Your task to perform on an android device: add a contact in the contacts app Image 0: 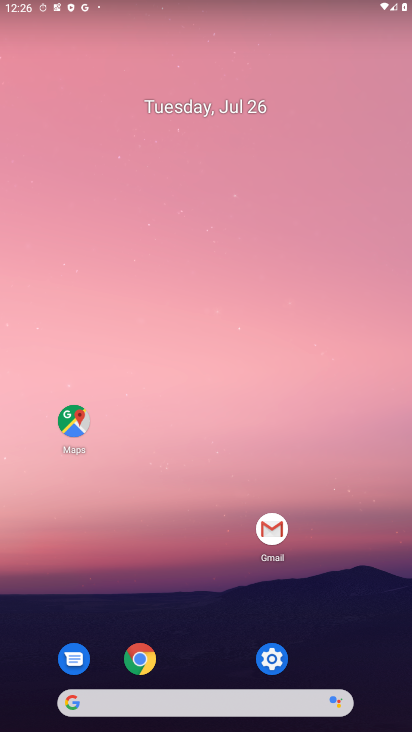
Step 0: drag from (276, 706) to (158, 194)
Your task to perform on an android device: add a contact in the contacts app Image 1: 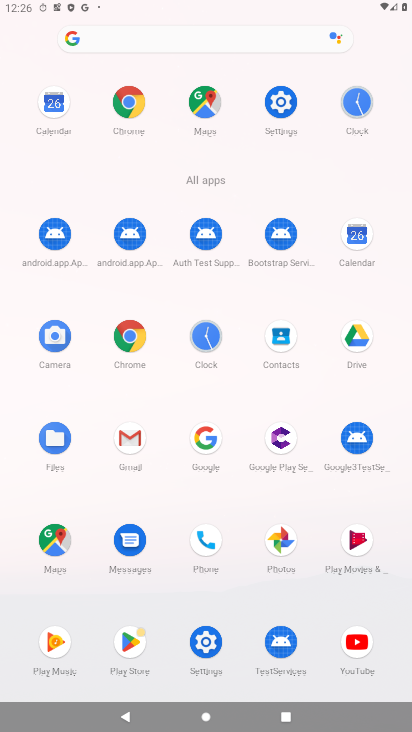
Step 1: click (204, 550)
Your task to perform on an android device: add a contact in the contacts app Image 2: 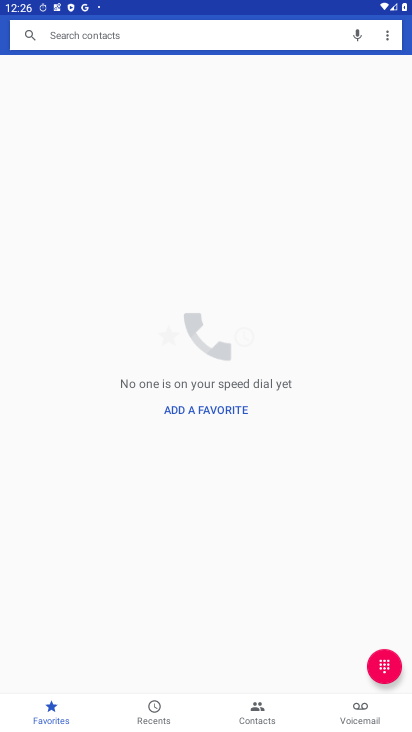
Step 2: click (265, 711)
Your task to perform on an android device: add a contact in the contacts app Image 3: 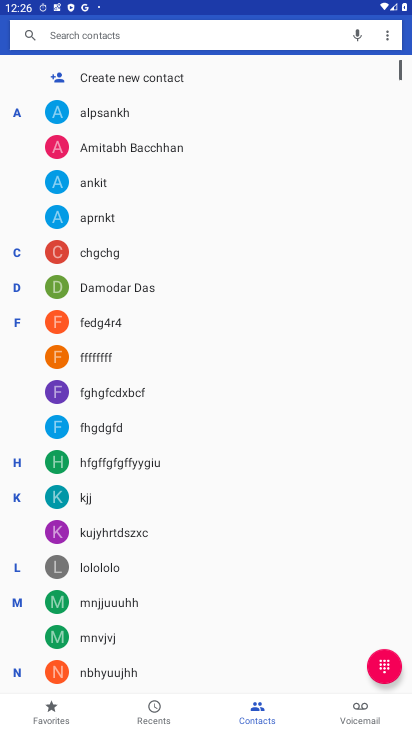
Step 3: click (122, 70)
Your task to perform on an android device: add a contact in the contacts app Image 4: 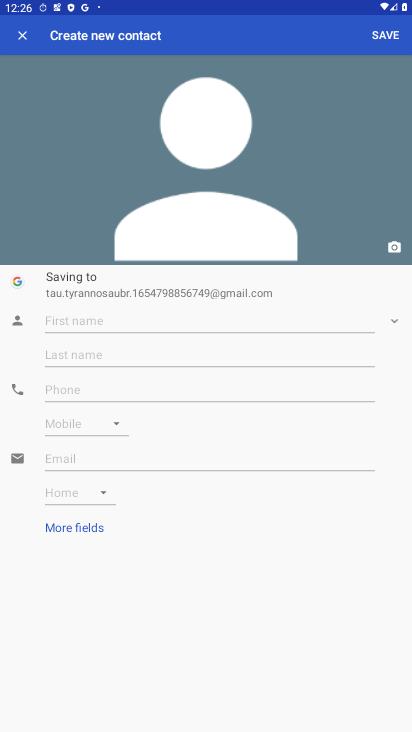
Step 4: click (117, 311)
Your task to perform on an android device: add a contact in the contacts app Image 5: 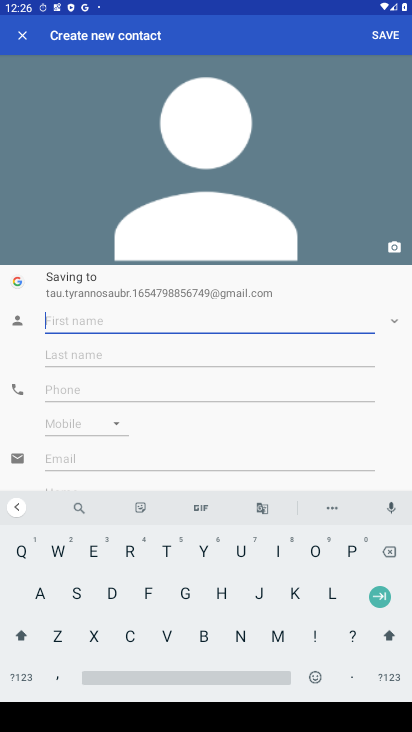
Step 5: click (103, 588)
Your task to perform on an android device: add a contact in the contacts app Image 6: 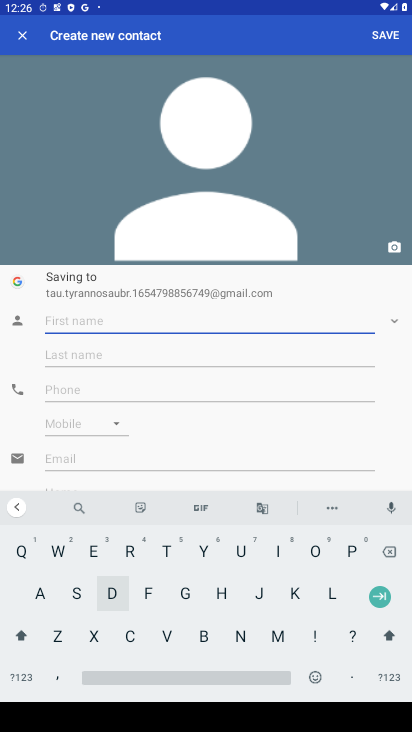
Step 6: click (201, 567)
Your task to perform on an android device: add a contact in the contacts app Image 7: 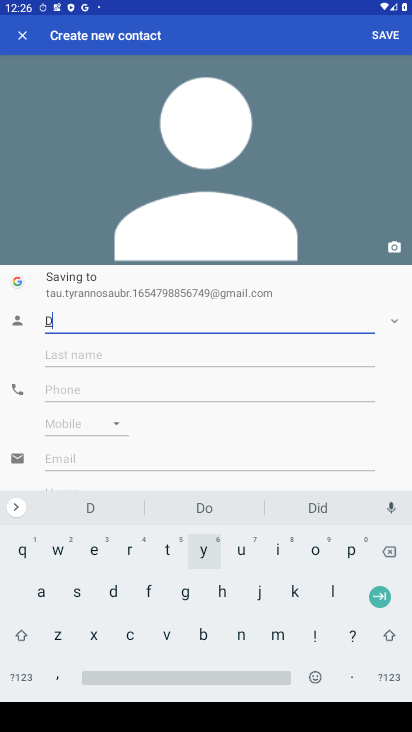
Step 7: click (190, 593)
Your task to perform on an android device: add a contact in the contacts app Image 8: 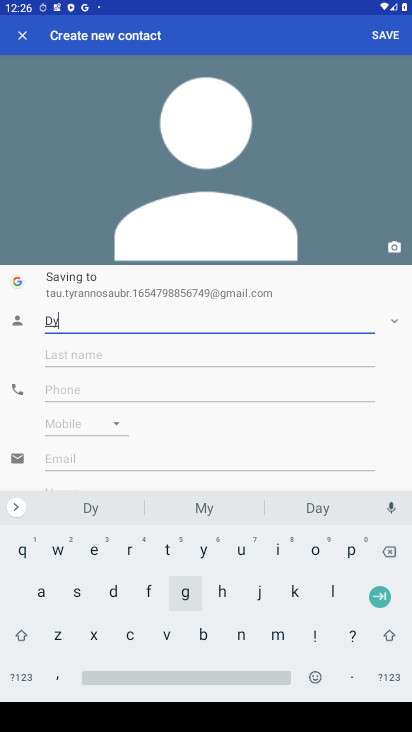
Step 8: click (165, 618)
Your task to perform on an android device: add a contact in the contacts app Image 9: 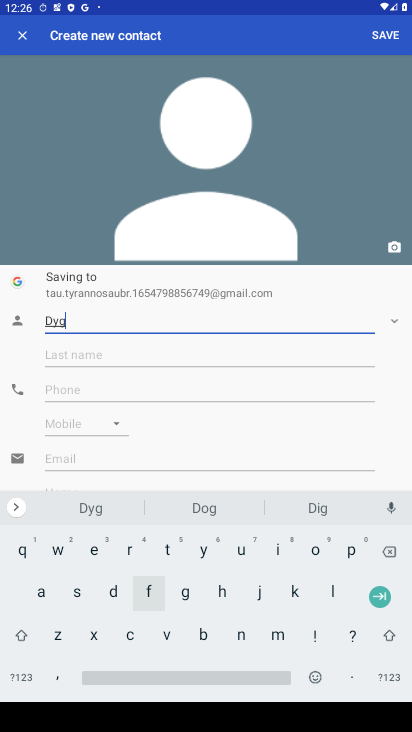
Step 9: click (164, 619)
Your task to perform on an android device: add a contact in the contacts app Image 10: 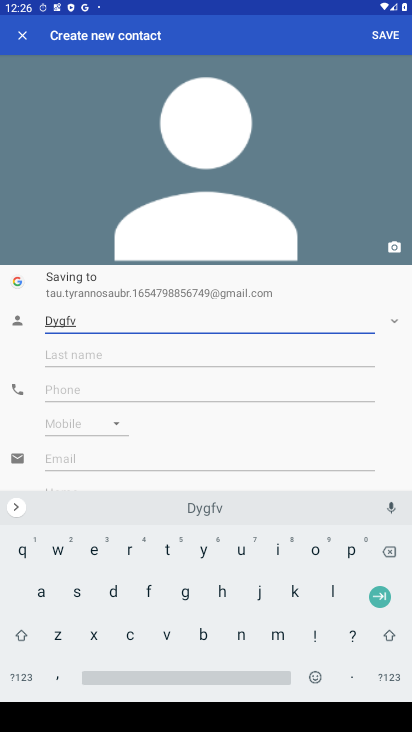
Step 10: click (80, 385)
Your task to perform on an android device: add a contact in the contacts app Image 11: 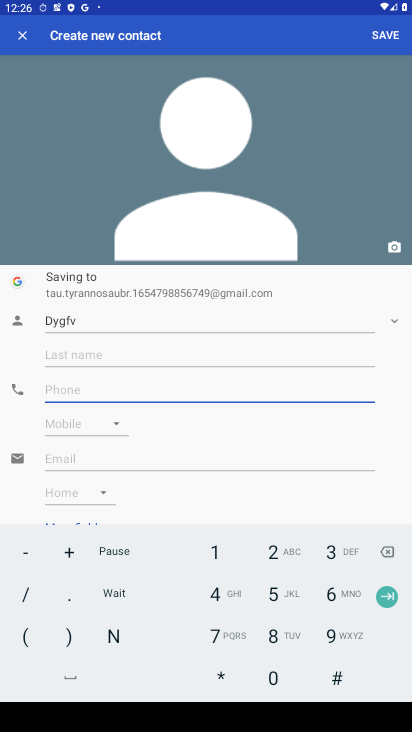
Step 11: click (220, 616)
Your task to perform on an android device: add a contact in the contacts app Image 12: 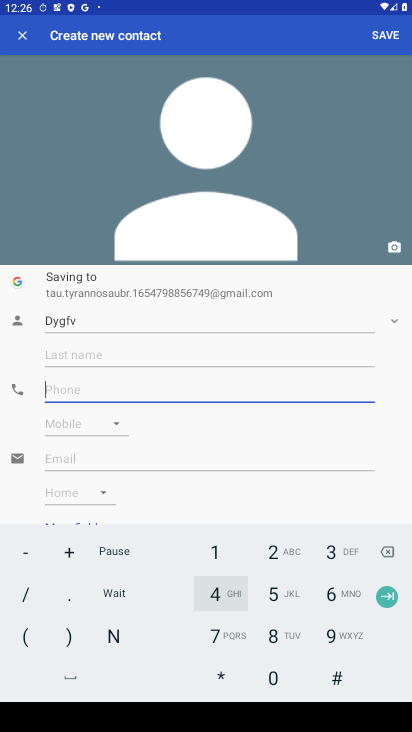
Step 12: click (178, 661)
Your task to perform on an android device: add a contact in the contacts app Image 13: 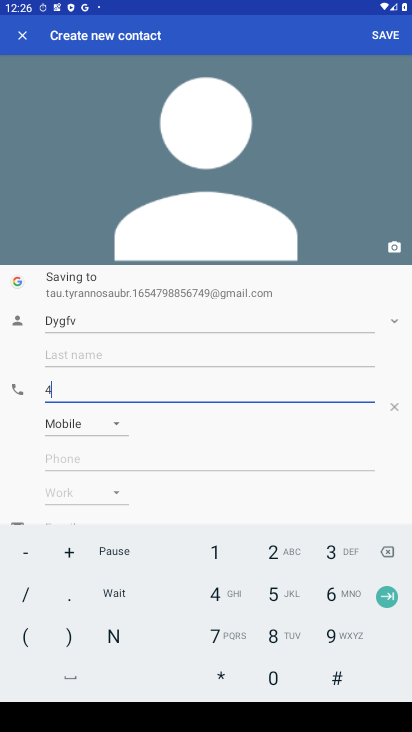
Step 13: click (315, 620)
Your task to perform on an android device: add a contact in the contacts app Image 14: 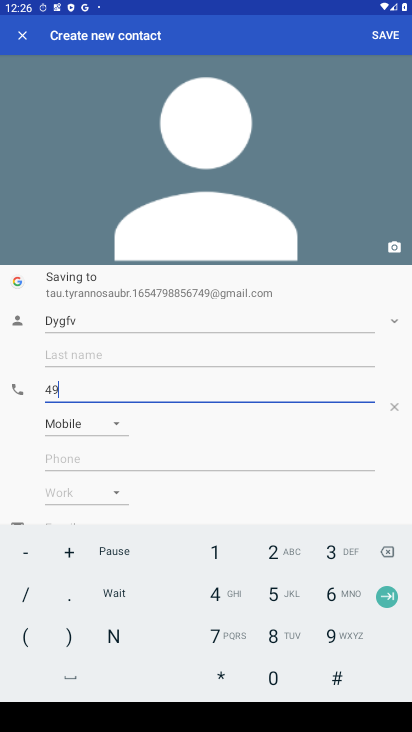
Step 14: click (293, 567)
Your task to perform on an android device: add a contact in the contacts app Image 15: 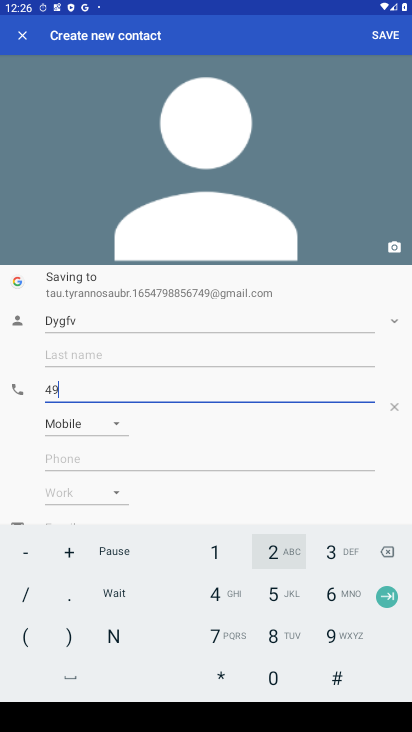
Step 15: click (249, 594)
Your task to perform on an android device: add a contact in the contacts app Image 16: 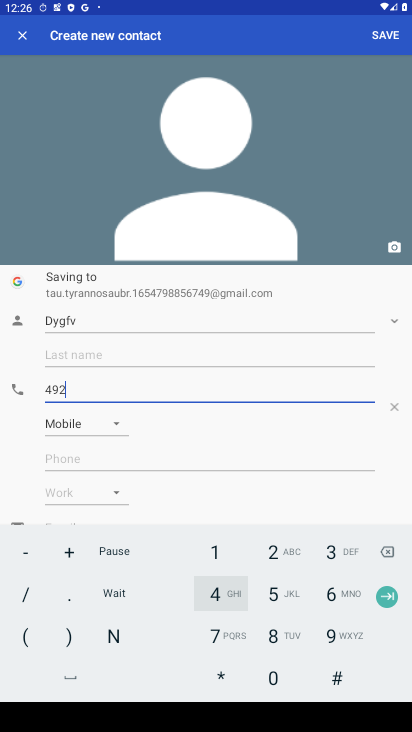
Step 16: click (250, 608)
Your task to perform on an android device: add a contact in the contacts app Image 17: 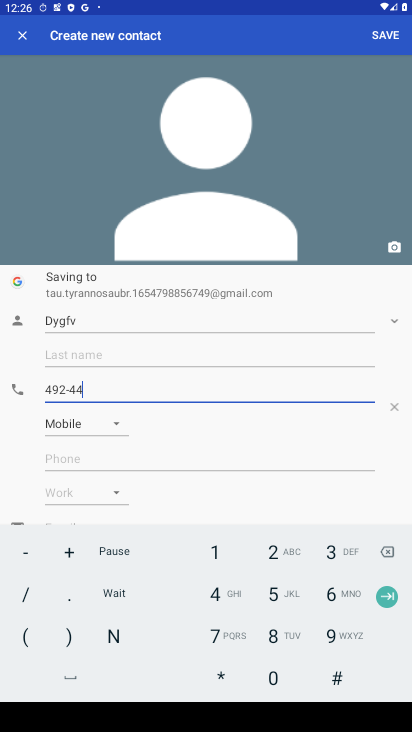
Step 17: click (294, 564)
Your task to perform on an android device: add a contact in the contacts app Image 18: 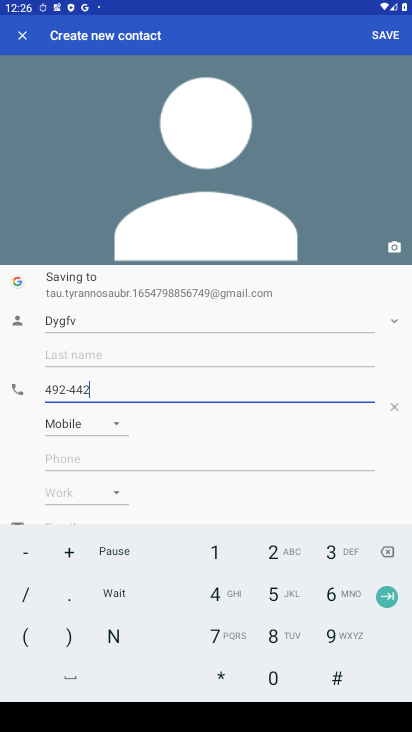
Step 18: click (386, 37)
Your task to perform on an android device: add a contact in the contacts app Image 19: 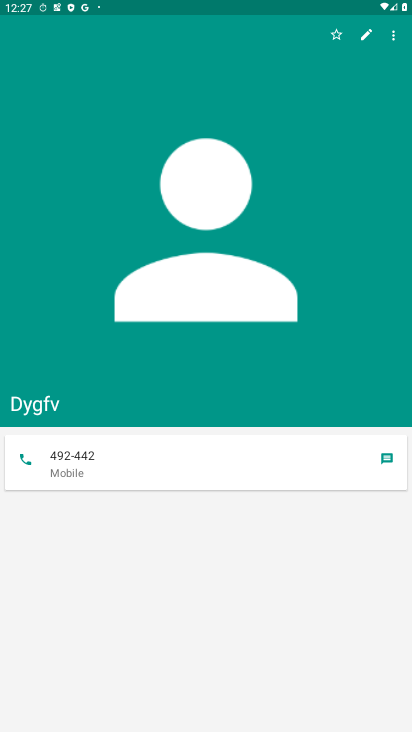
Step 19: task complete